Your task to perform on an android device: Check the news Image 0: 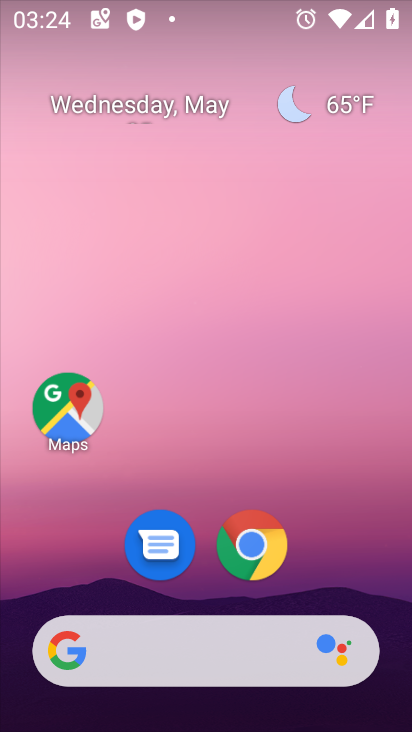
Step 0: drag from (352, 512) to (161, 53)
Your task to perform on an android device: Check the news Image 1: 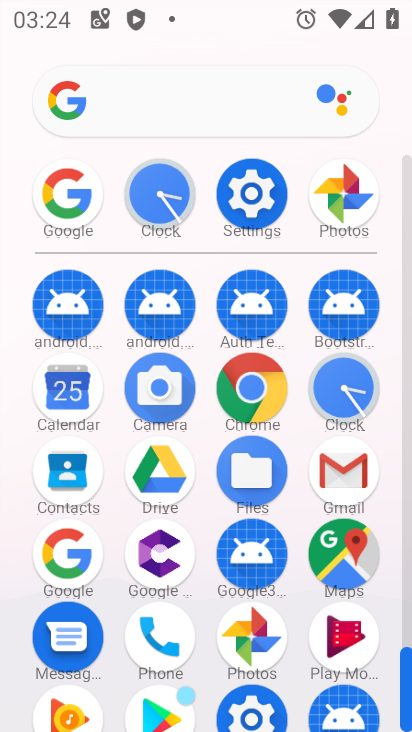
Step 1: click (71, 554)
Your task to perform on an android device: Check the news Image 2: 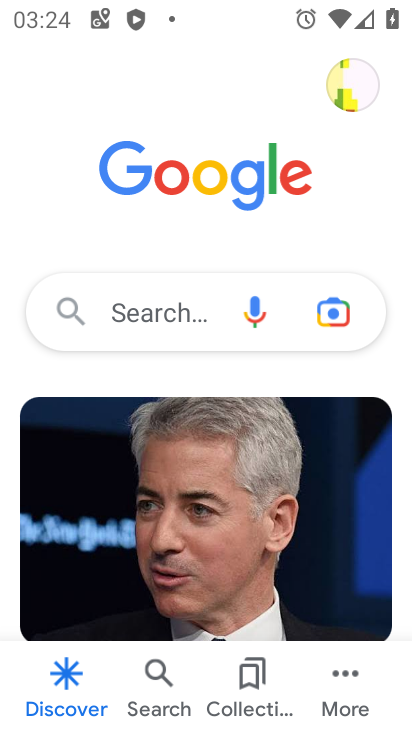
Step 2: click (170, 299)
Your task to perform on an android device: Check the news Image 3: 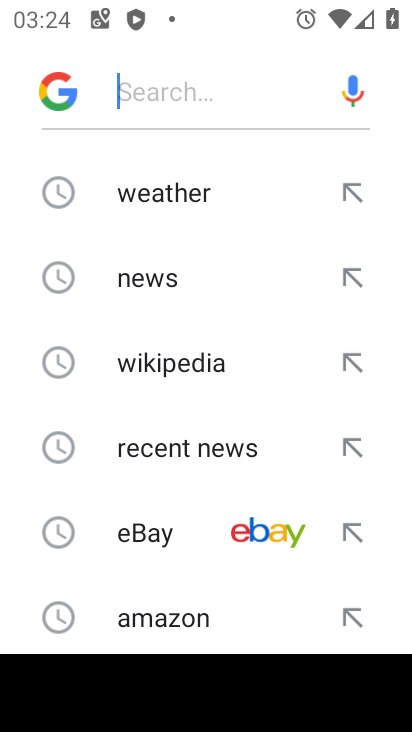
Step 3: click (193, 285)
Your task to perform on an android device: Check the news Image 4: 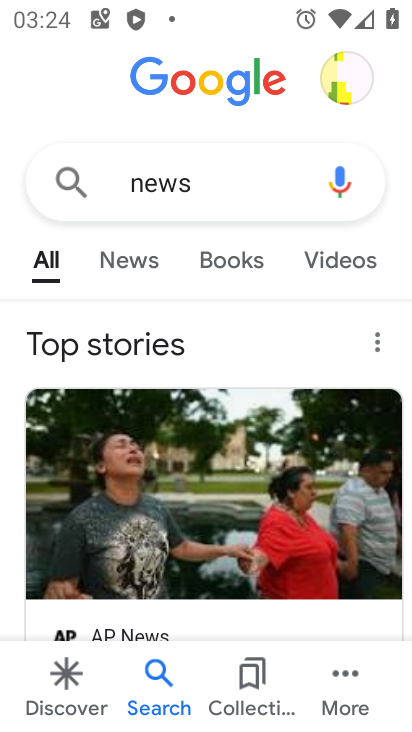
Step 4: task complete